Your task to perform on an android device: toggle show notifications on the lock screen Image 0: 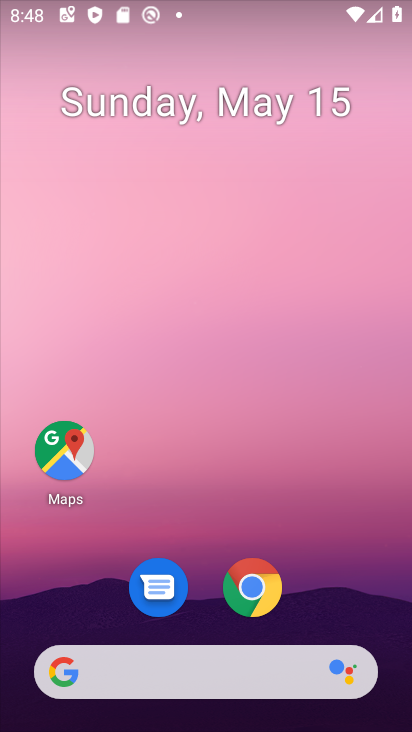
Step 0: drag from (369, 295) to (308, 21)
Your task to perform on an android device: toggle show notifications on the lock screen Image 1: 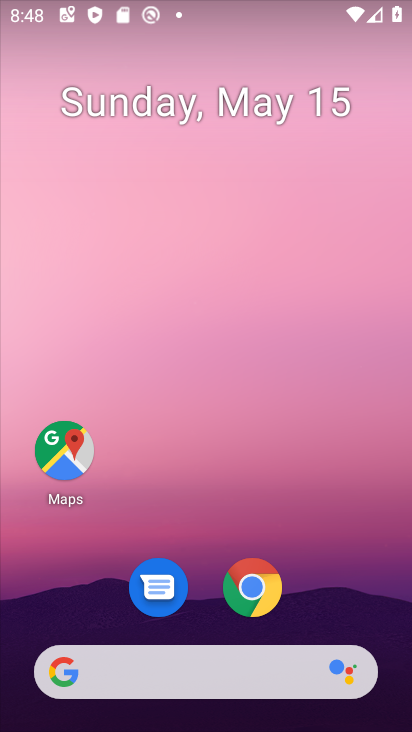
Step 1: drag from (384, 589) to (278, 55)
Your task to perform on an android device: toggle show notifications on the lock screen Image 2: 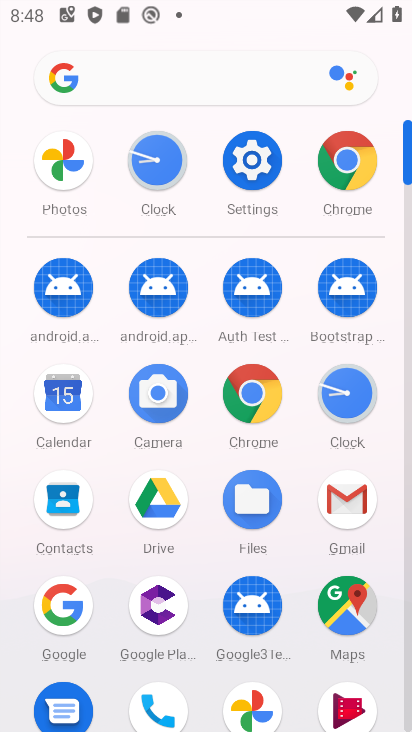
Step 2: click (259, 160)
Your task to perform on an android device: toggle show notifications on the lock screen Image 3: 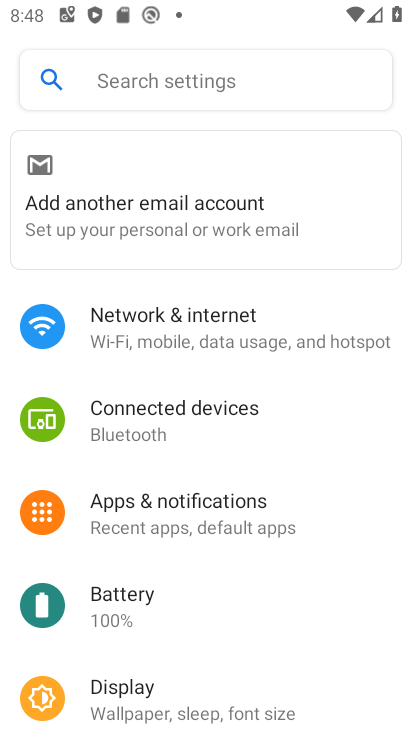
Step 3: click (221, 487)
Your task to perform on an android device: toggle show notifications on the lock screen Image 4: 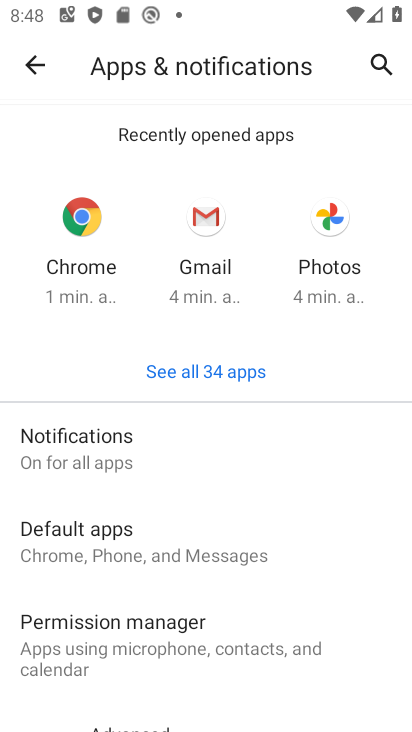
Step 4: drag from (207, 588) to (218, 415)
Your task to perform on an android device: toggle show notifications on the lock screen Image 5: 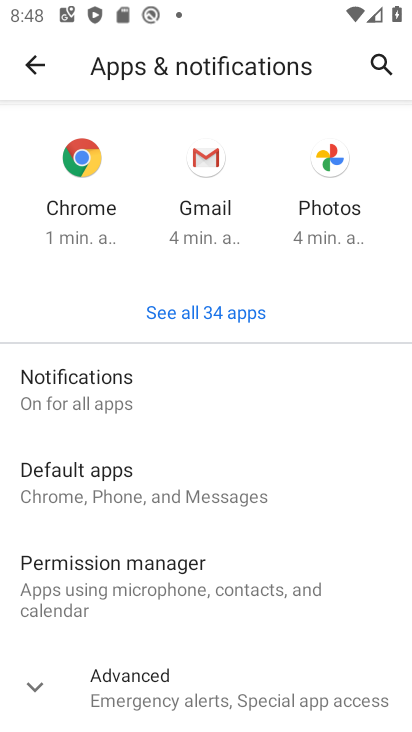
Step 5: click (210, 393)
Your task to perform on an android device: toggle show notifications on the lock screen Image 6: 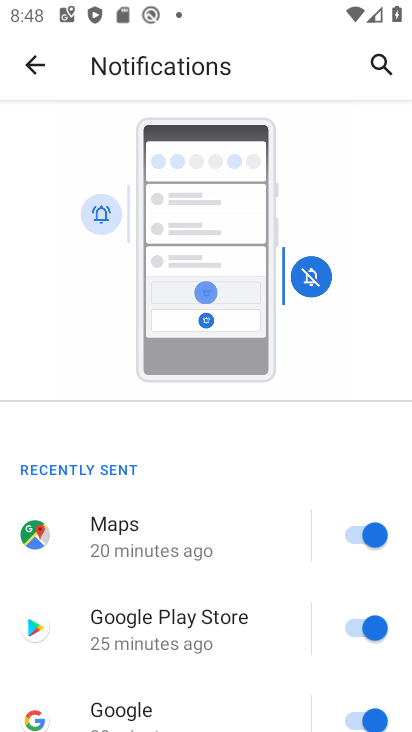
Step 6: drag from (136, 654) to (144, 66)
Your task to perform on an android device: toggle show notifications on the lock screen Image 7: 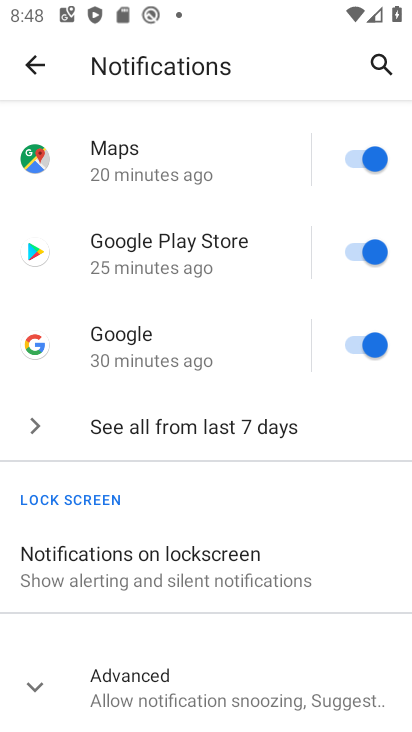
Step 7: click (195, 566)
Your task to perform on an android device: toggle show notifications on the lock screen Image 8: 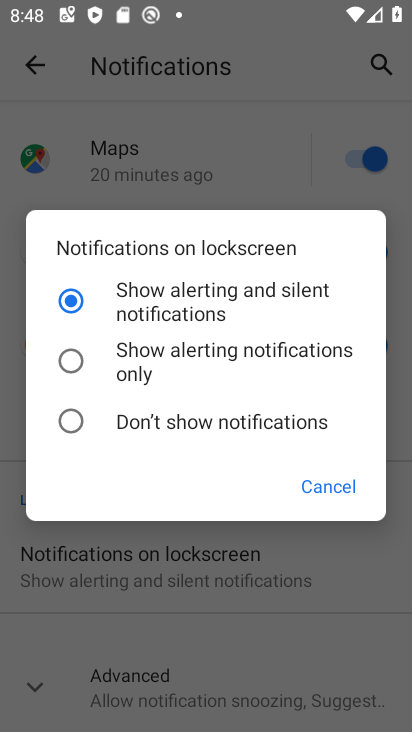
Step 8: click (202, 405)
Your task to perform on an android device: toggle show notifications on the lock screen Image 9: 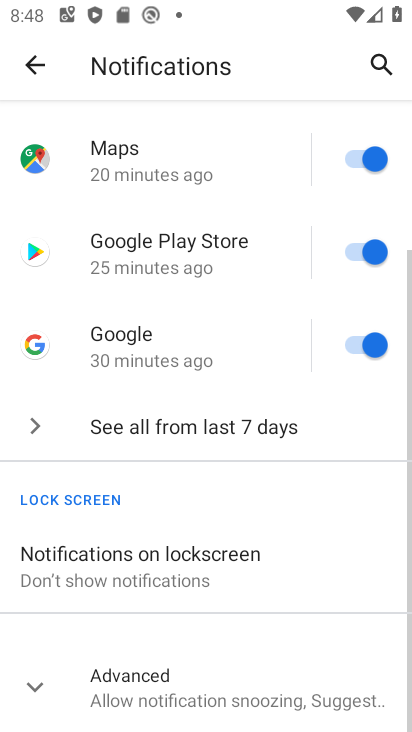
Step 9: task complete